Your task to perform on an android device: open a new tab in the chrome app Image 0: 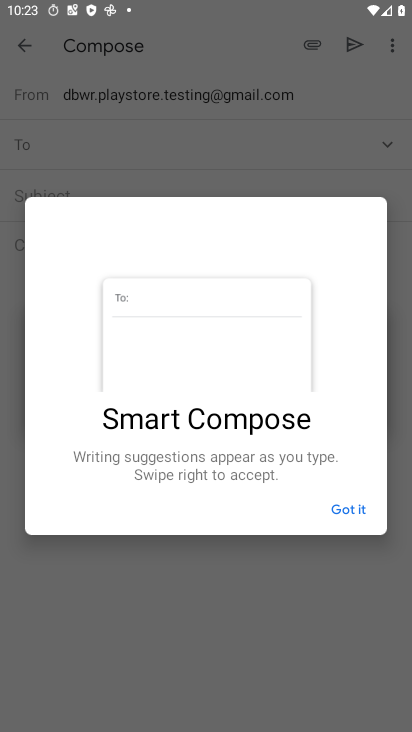
Step 0: press home button
Your task to perform on an android device: open a new tab in the chrome app Image 1: 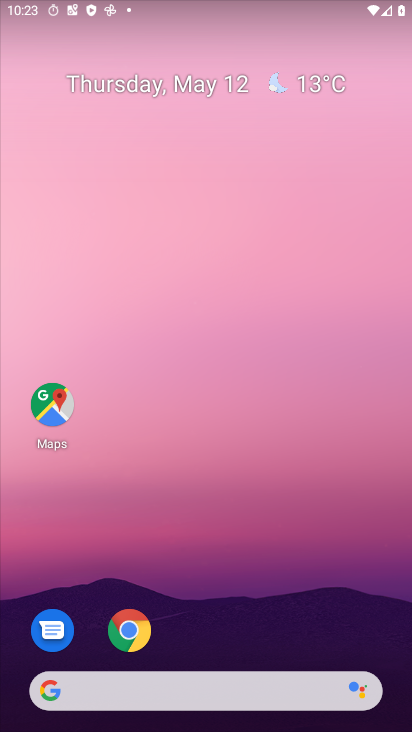
Step 1: click (133, 622)
Your task to perform on an android device: open a new tab in the chrome app Image 2: 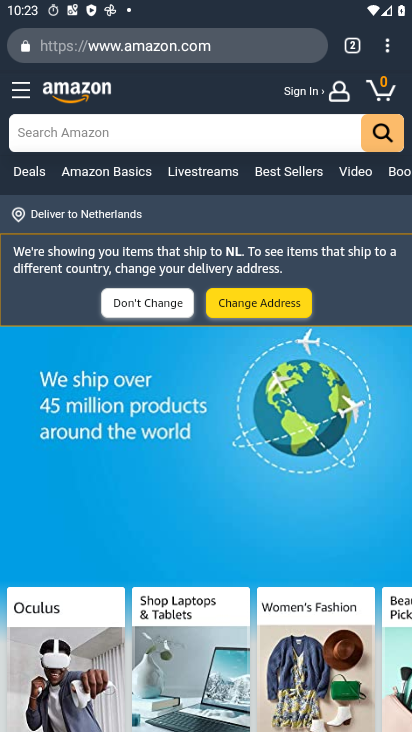
Step 2: task complete